Your task to perform on an android device: Search for Mexican restaurants on Maps Image 0: 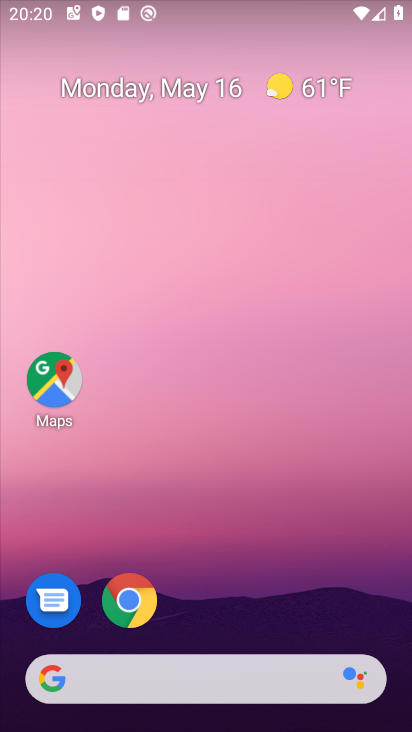
Step 0: click (73, 405)
Your task to perform on an android device: Search for Mexican restaurants on Maps Image 1: 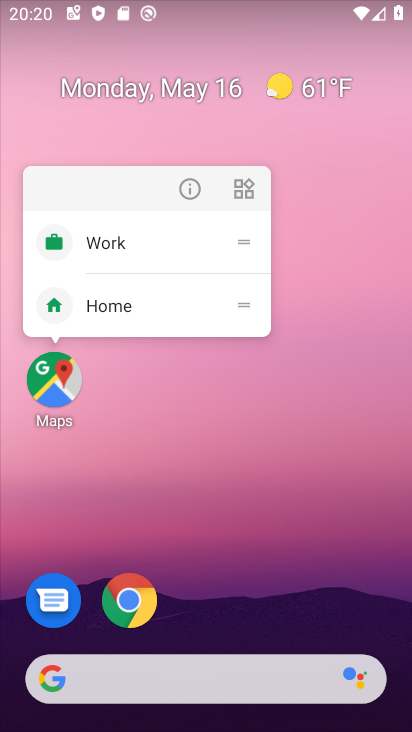
Step 1: click (77, 377)
Your task to perform on an android device: Search for Mexican restaurants on Maps Image 2: 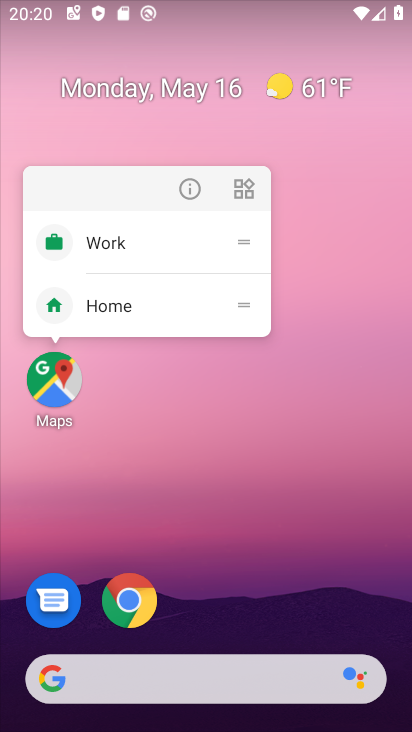
Step 2: click (47, 384)
Your task to perform on an android device: Search for Mexican restaurants on Maps Image 3: 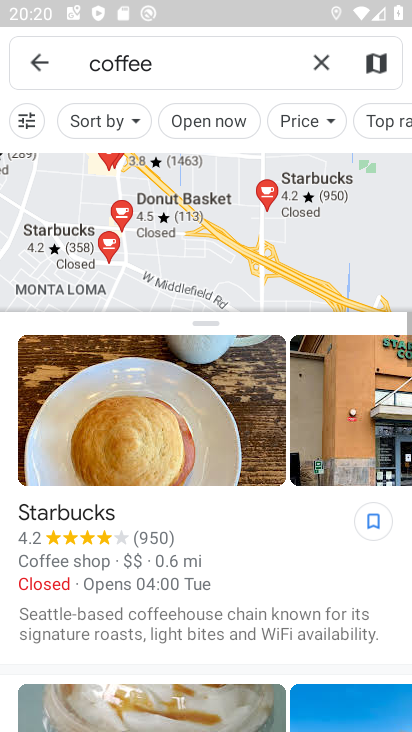
Step 3: click (322, 67)
Your task to perform on an android device: Search for Mexican restaurants on Maps Image 4: 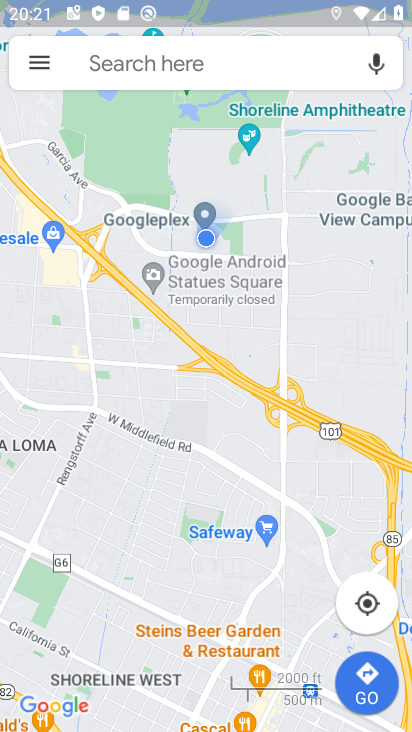
Step 4: click (242, 75)
Your task to perform on an android device: Search for Mexican restaurants on Maps Image 5: 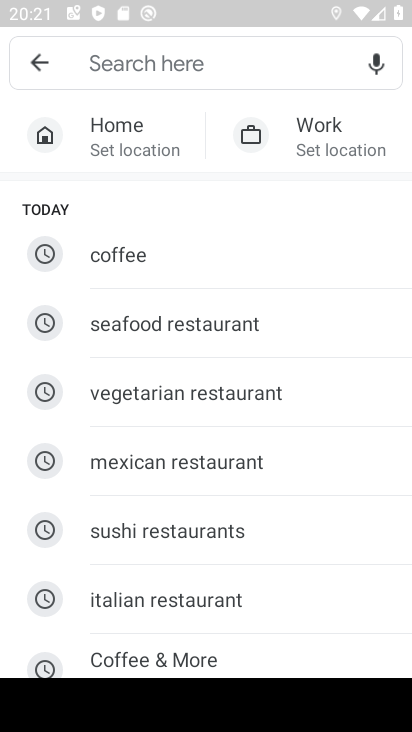
Step 5: type "Mexican restaurants"
Your task to perform on an android device: Search for Mexican restaurants on Maps Image 6: 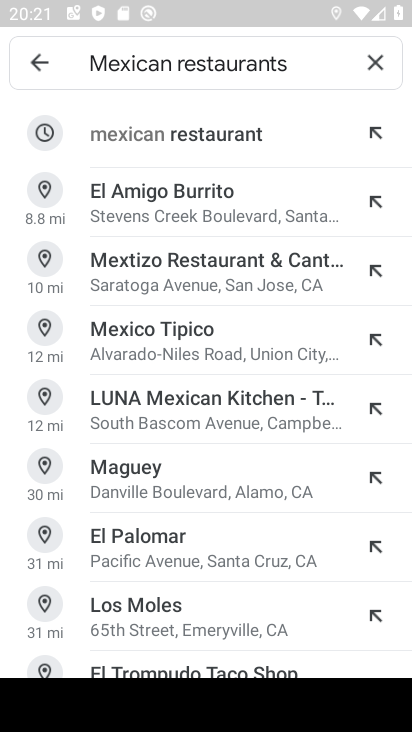
Step 6: click (121, 164)
Your task to perform on an android device: Search for Mexican restaurants on Maps Image 7: 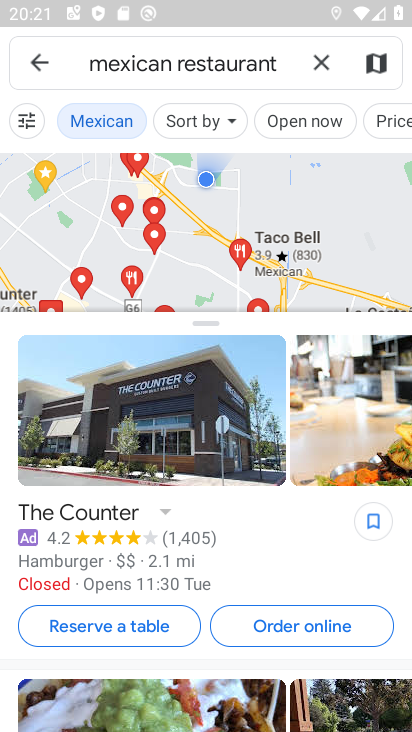
Step 7: task complete